Your task to perform on an android device: open a bookmark in the chrome app Image 0: 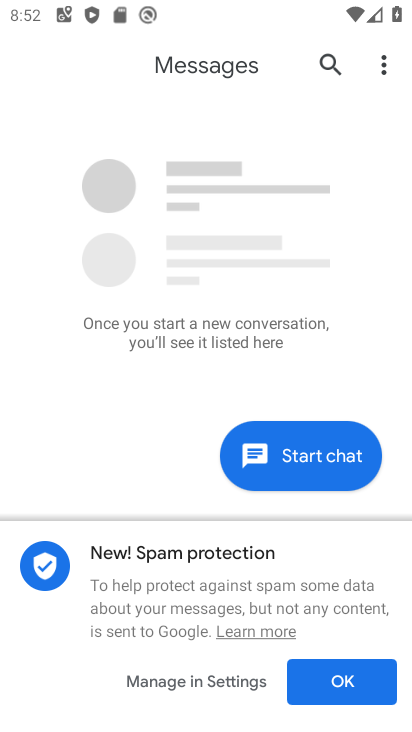
Step 0: press home button
Your task to perform on an android device: open a bookmark in the chrome app Image 1: 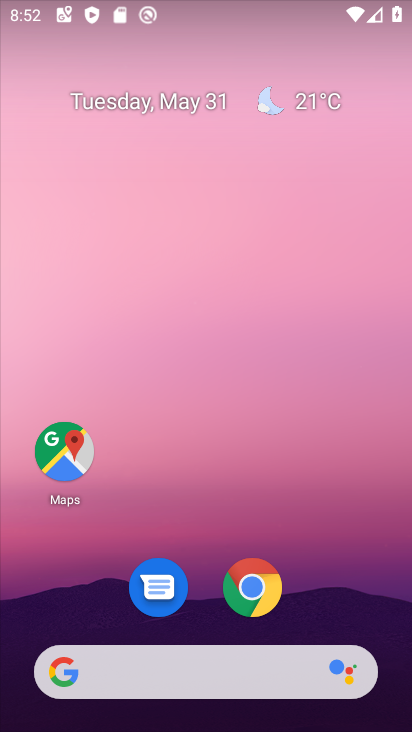
Step 1: click (254, 597)
Your task to perform on an android device: open a bookmark in the chrome app Image 2: 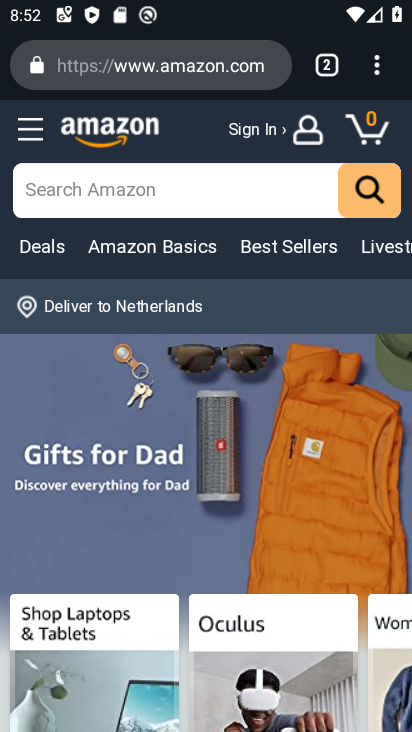
Step 2: click (390, 73)
Your task to perform on an android device: open a bookmark in the chrome app Image 3: 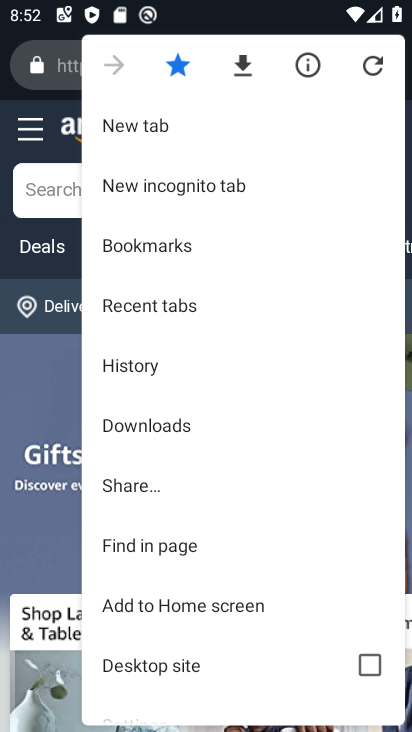
Step 3: click (170, 255)
Your task to perform on an android device: open a bookmark in the chrome app Image 4: 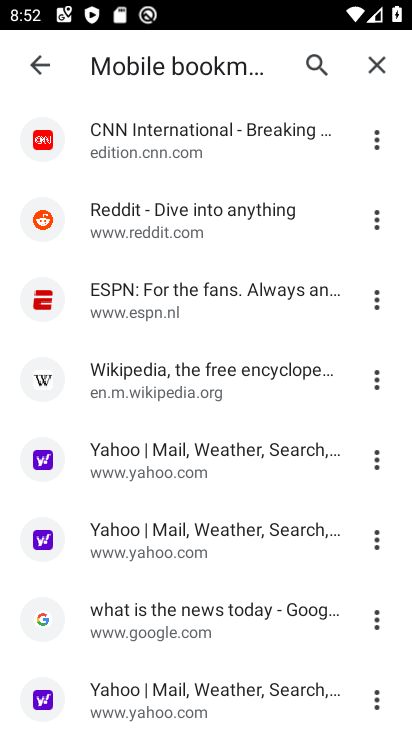
Step 4: click (187, 296)
Your task to perform on an android device: open a bookmark in the chrome app Image 5: 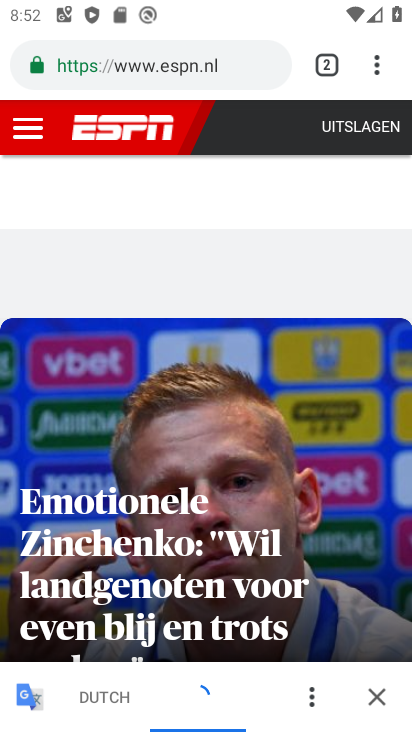
Step 5: task complete